Your task to perform on an android device: Search for macbook air on costco, select the first entry, and add it to the cart. Image 0: 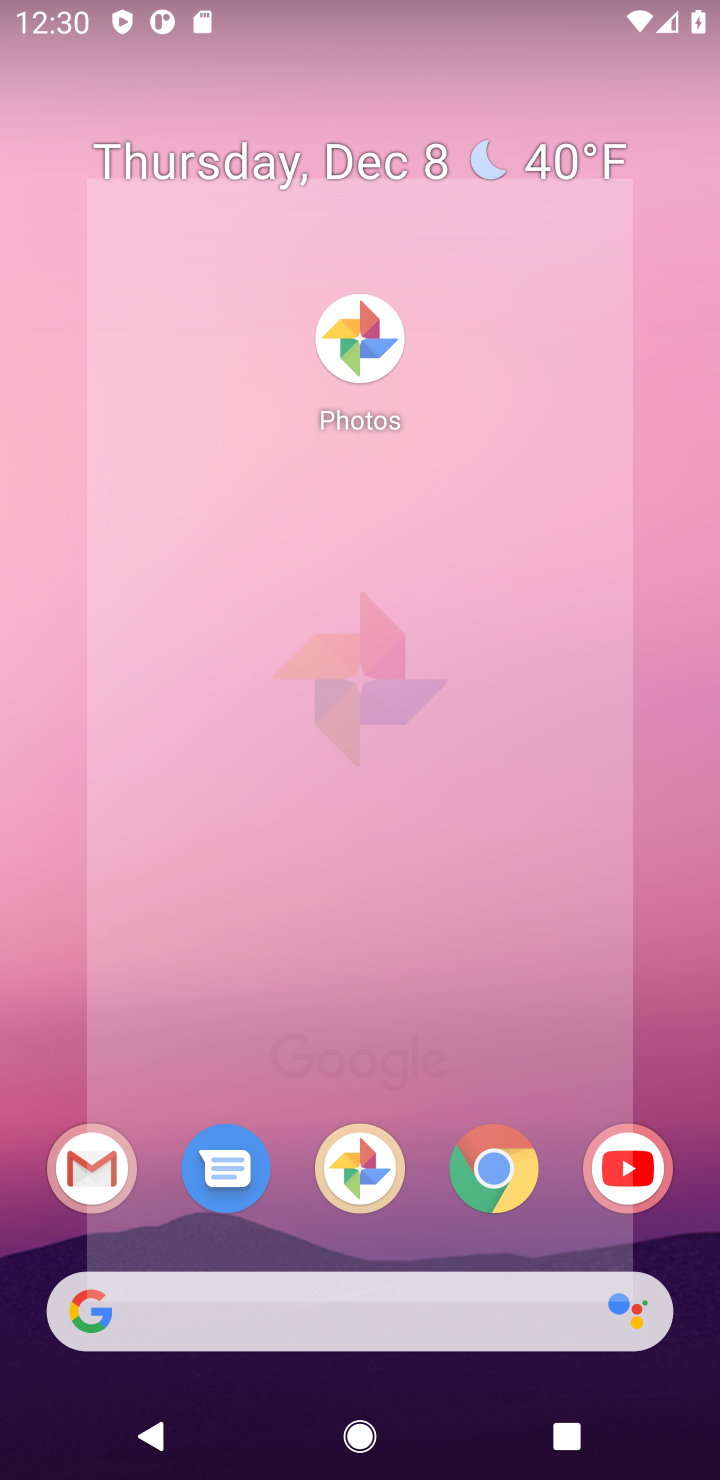
Step 0: drag from (340, 1022) to (353, 407)
Your task to perform on an android device: Search for macbook air on costco, select the first entry, and add it to the cart. Image 1: 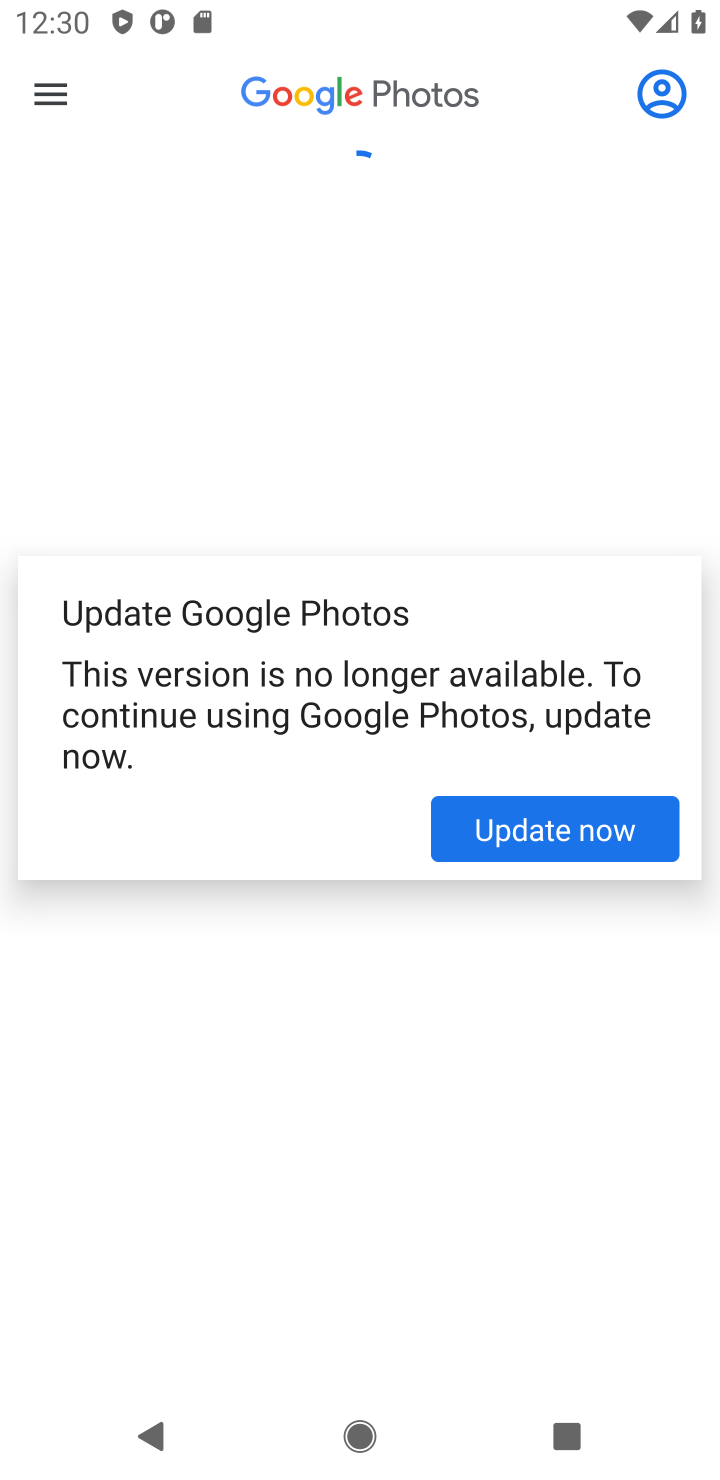
Step 1: press home button
Your task to perform on an android device: Search for macbook air on costco, select the first entry, and add it to the cart. Image 2: 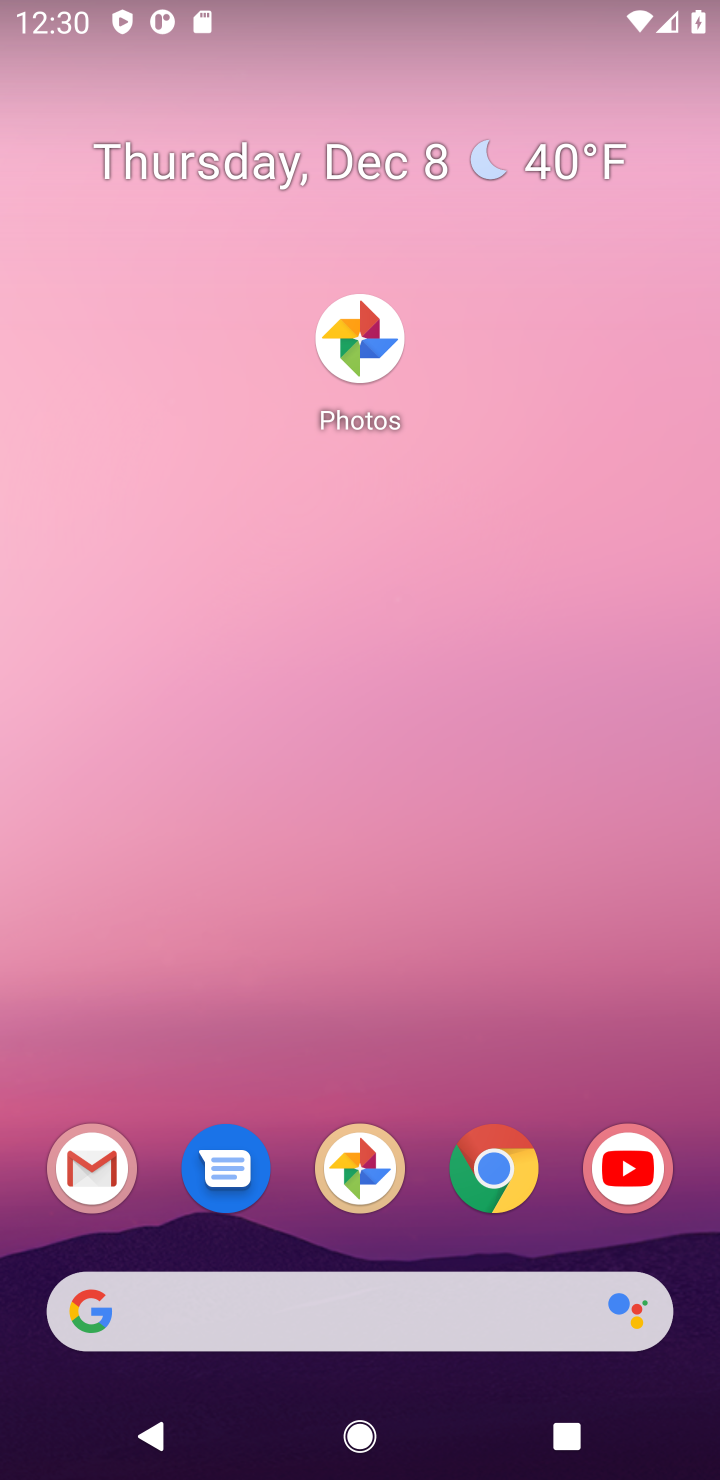
Step 2: drag from (392, 1254) to (345, 326)
Your task to perform on an android device: Search for macbook air on costco, select the first entry, and add it to the cart. Image 3: 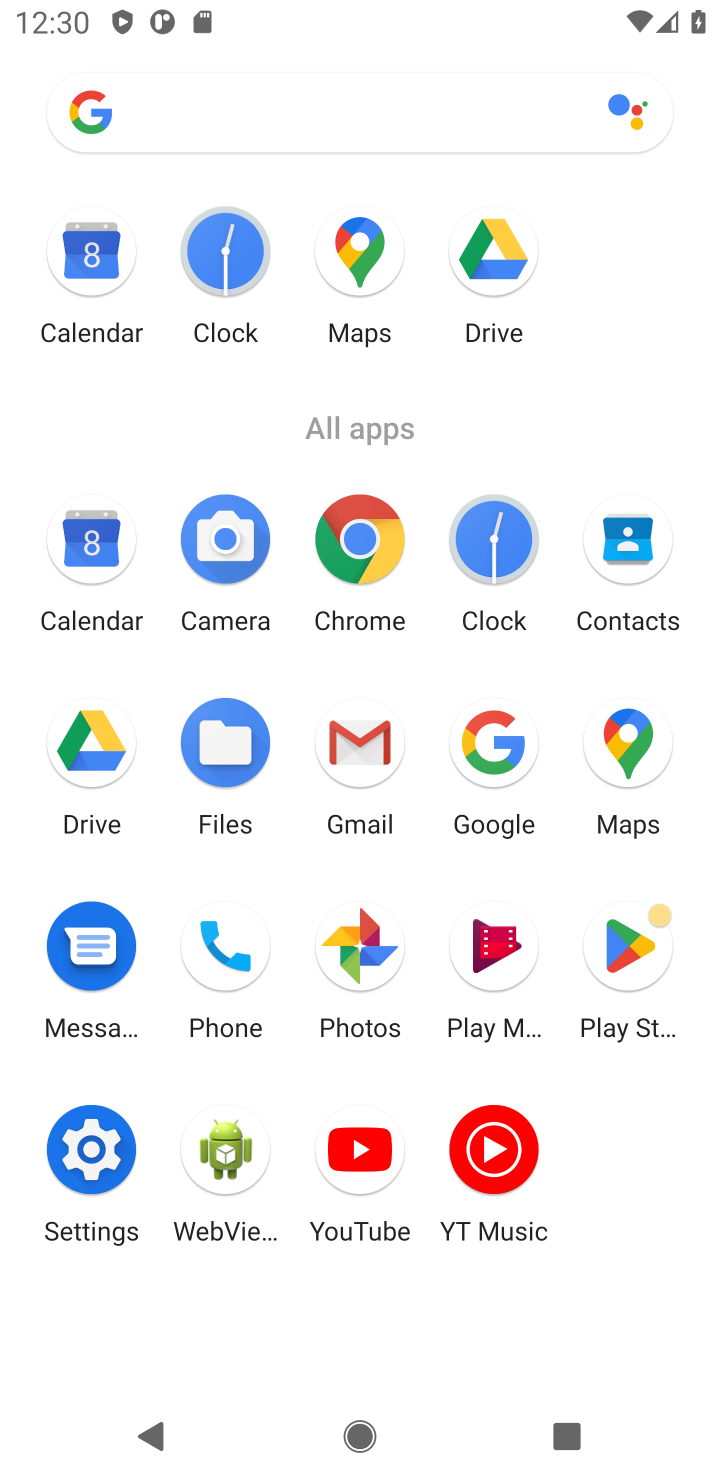
Step 3: click (493, 742)
Your task to perform on an android device: Search for macbook air on costco, select the first entry, and add it to the cart. Image 4: 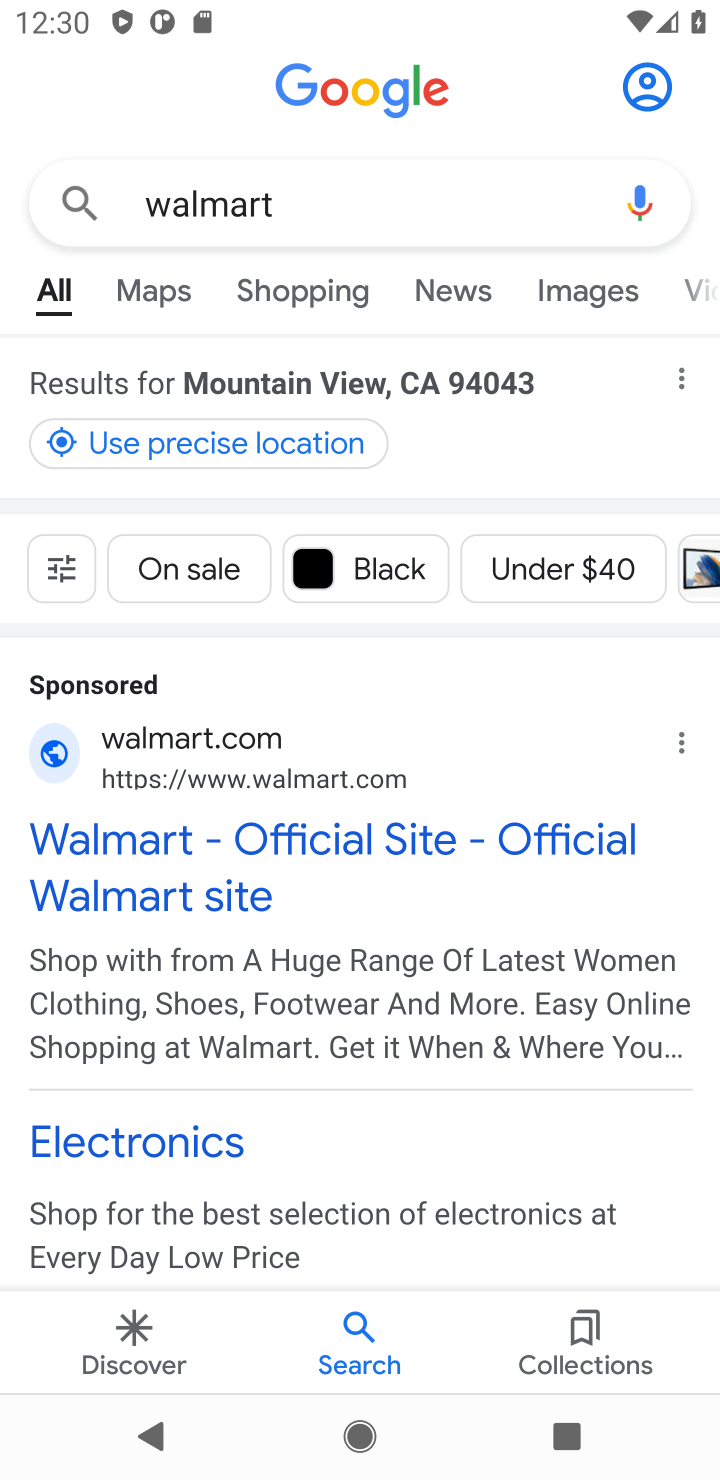
Step 4: click (221, 215)
Your task to perform on an android device: Search for macbook air on costco, select the first entry, and add it to the cart. Image 5: 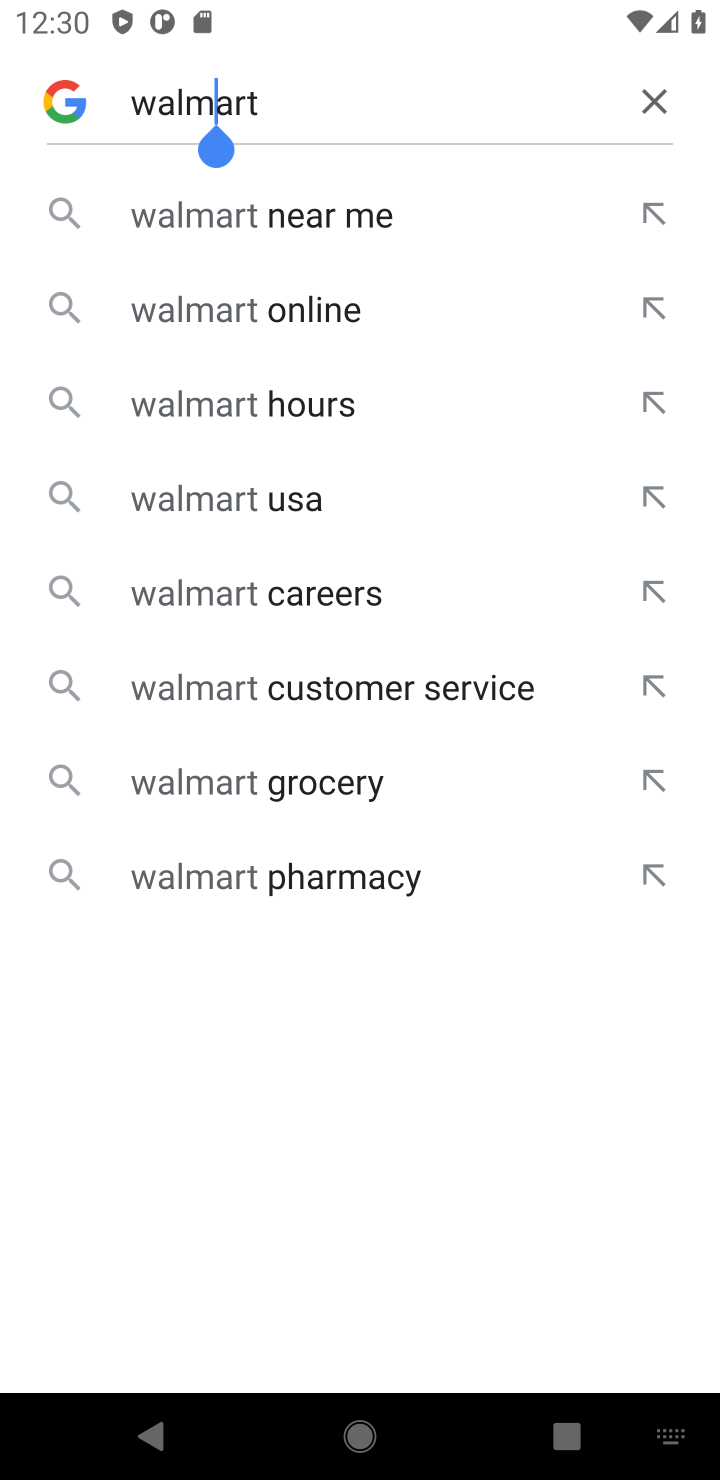
Step 5: click (667, 105)
Your task to perform on an android device: Search for macbook air on costco, select the first entry, and add it to the cart. Image 6: 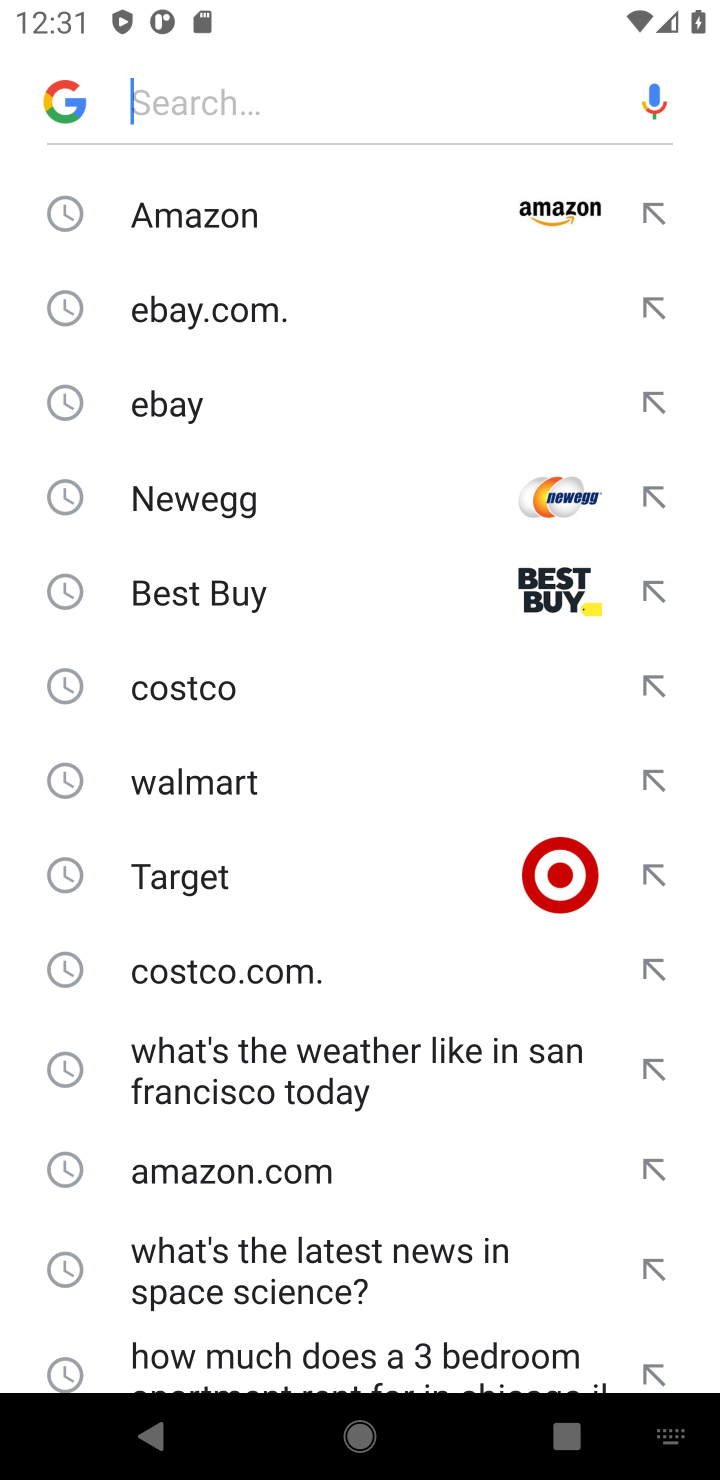
Step 6: click (150, 95)
Your task to perform on an android device: Search for macbook air on costco, select the first entry, and add it to the cart. Image 7: 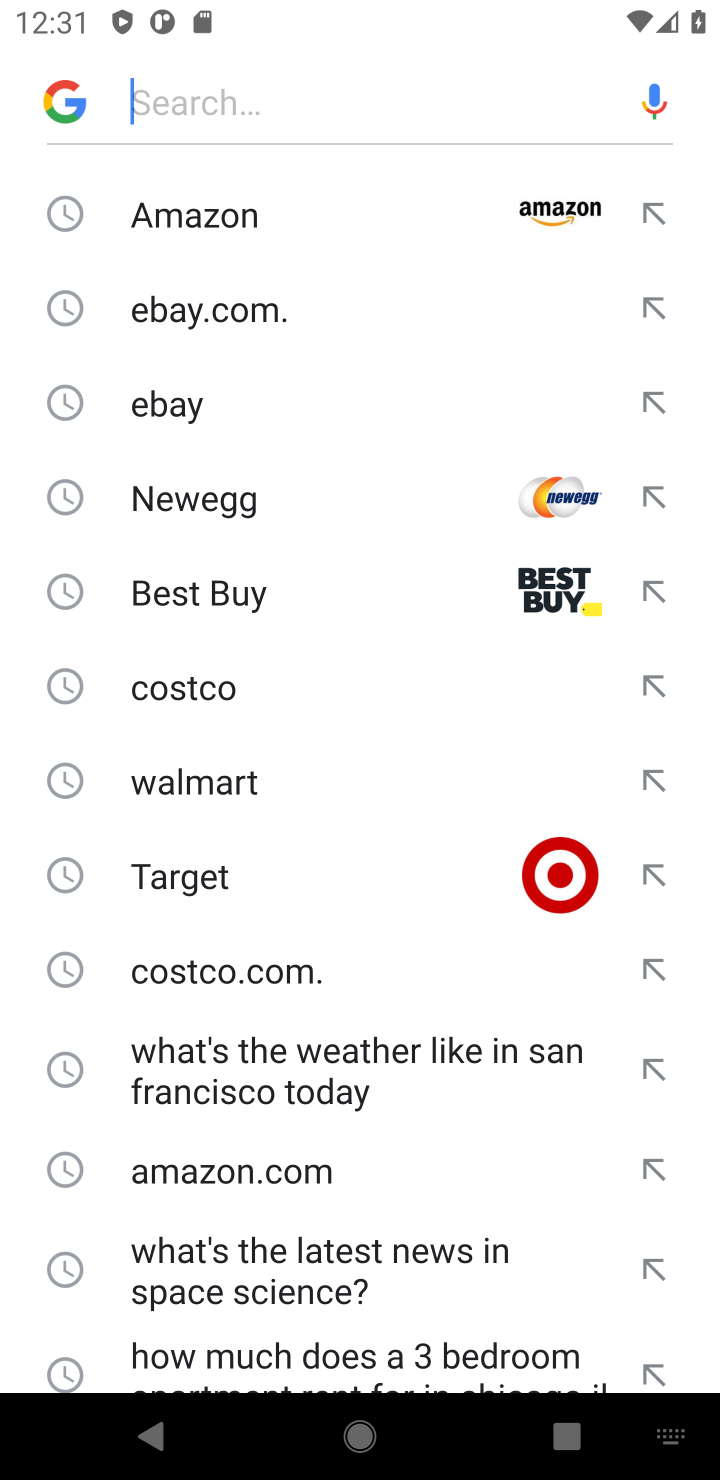
Step 7: click (159, 686)
Your task to perform on an android device: Search for macbook air on costco, select the first entry, and add it to the cart. Image 8: 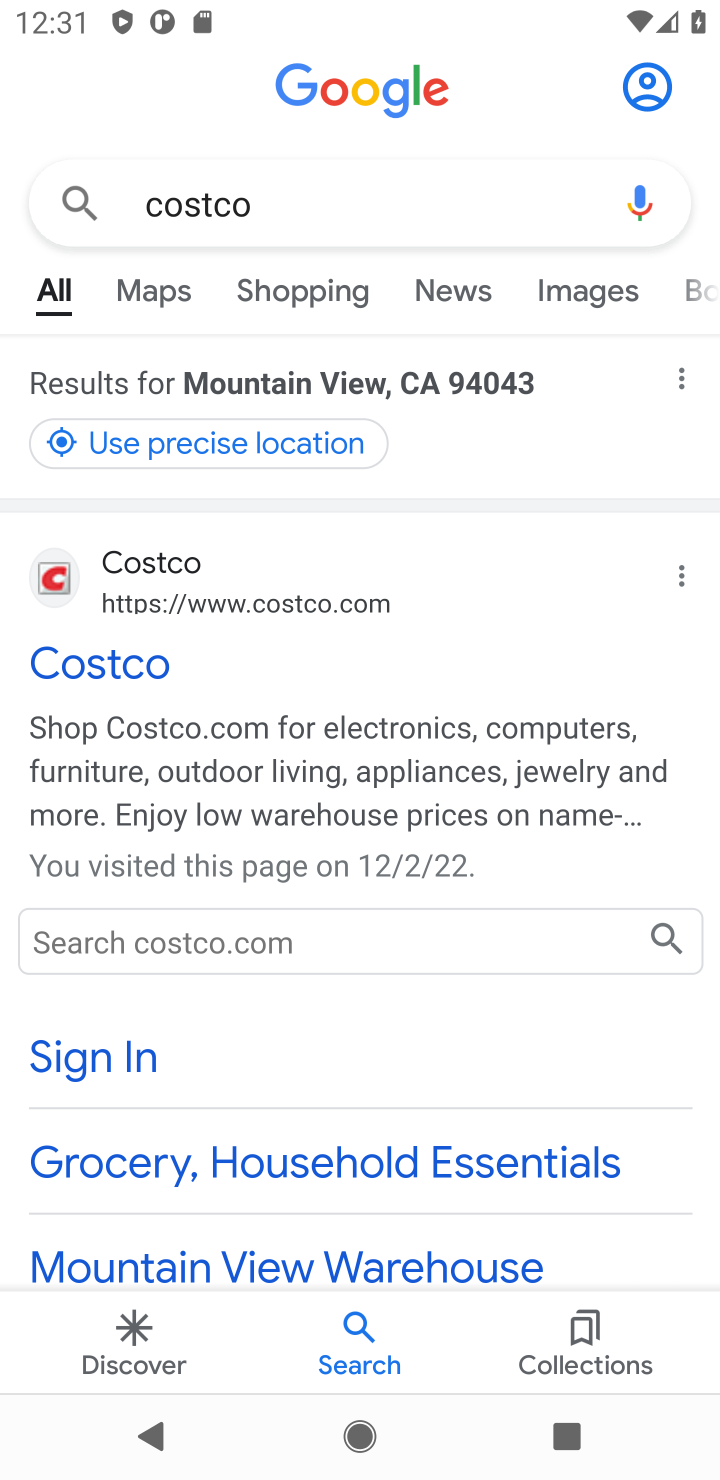
Step 8: click (115, 664)
Your task to perform on an android device: Search for macbook air on costco, select the first entry, and add it to the cart. Image 9: 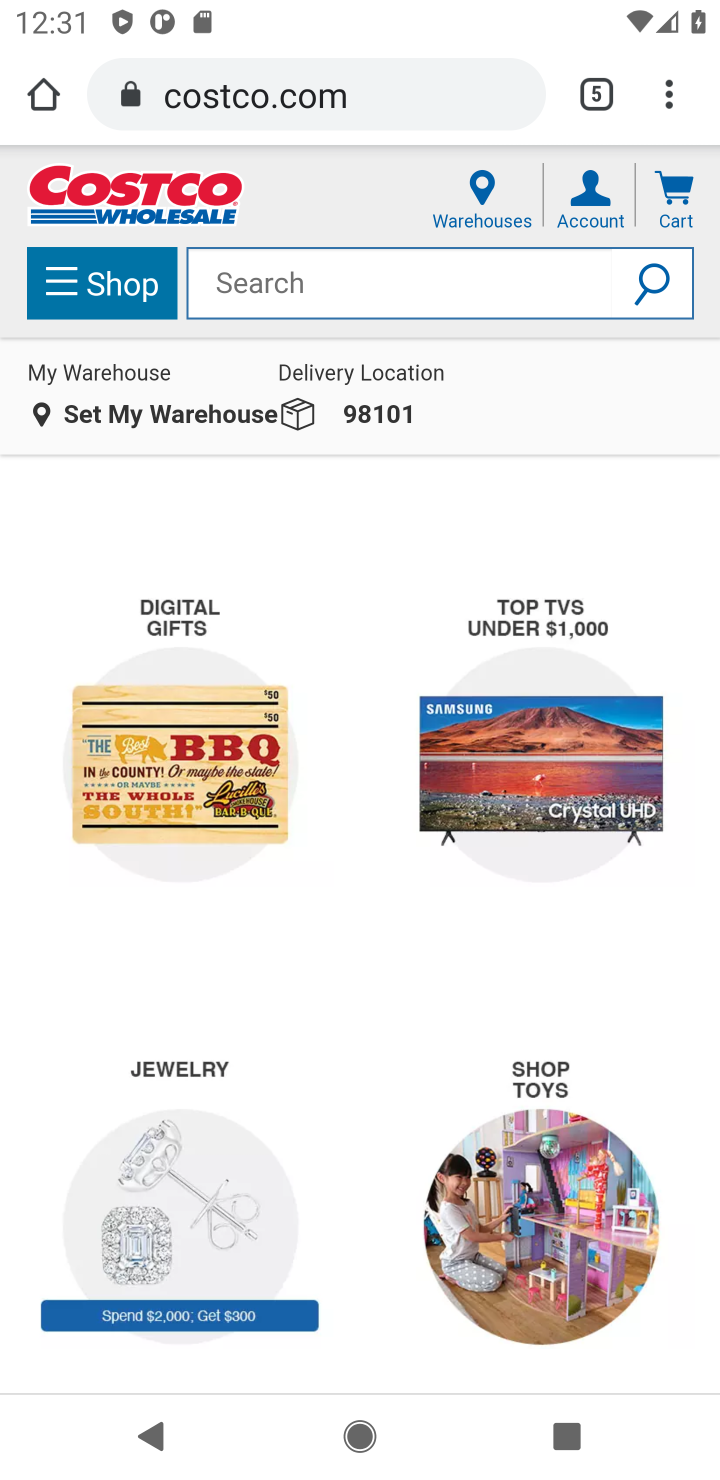
Step 9: click (321, 282)
Your task to perform on an android device: Search for macbook air on costco, select the first entry, and add it to the cart. Image 10: 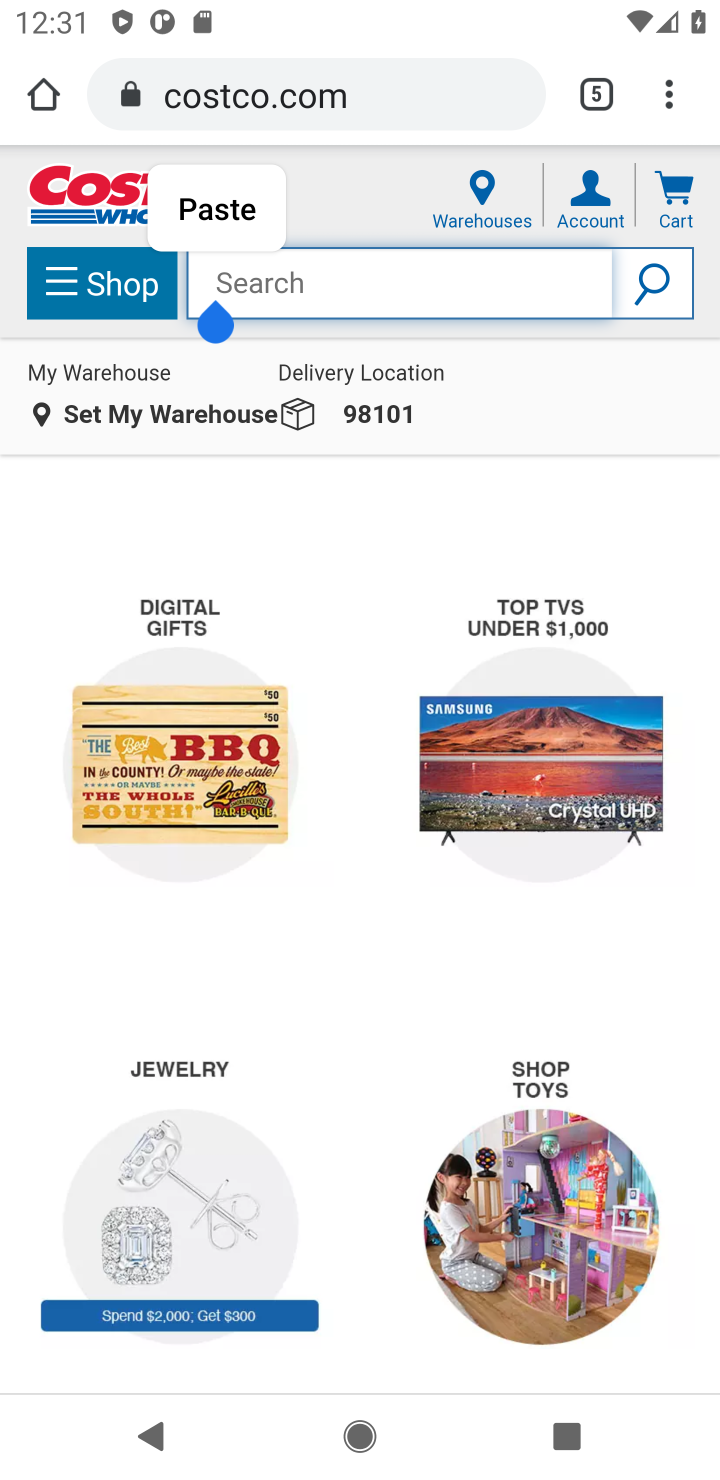
Step 10: type "macbook air"
Your task to perform on an android device: Search for macbook air on costco, select the first entry, and add it to the cart. Image 11: 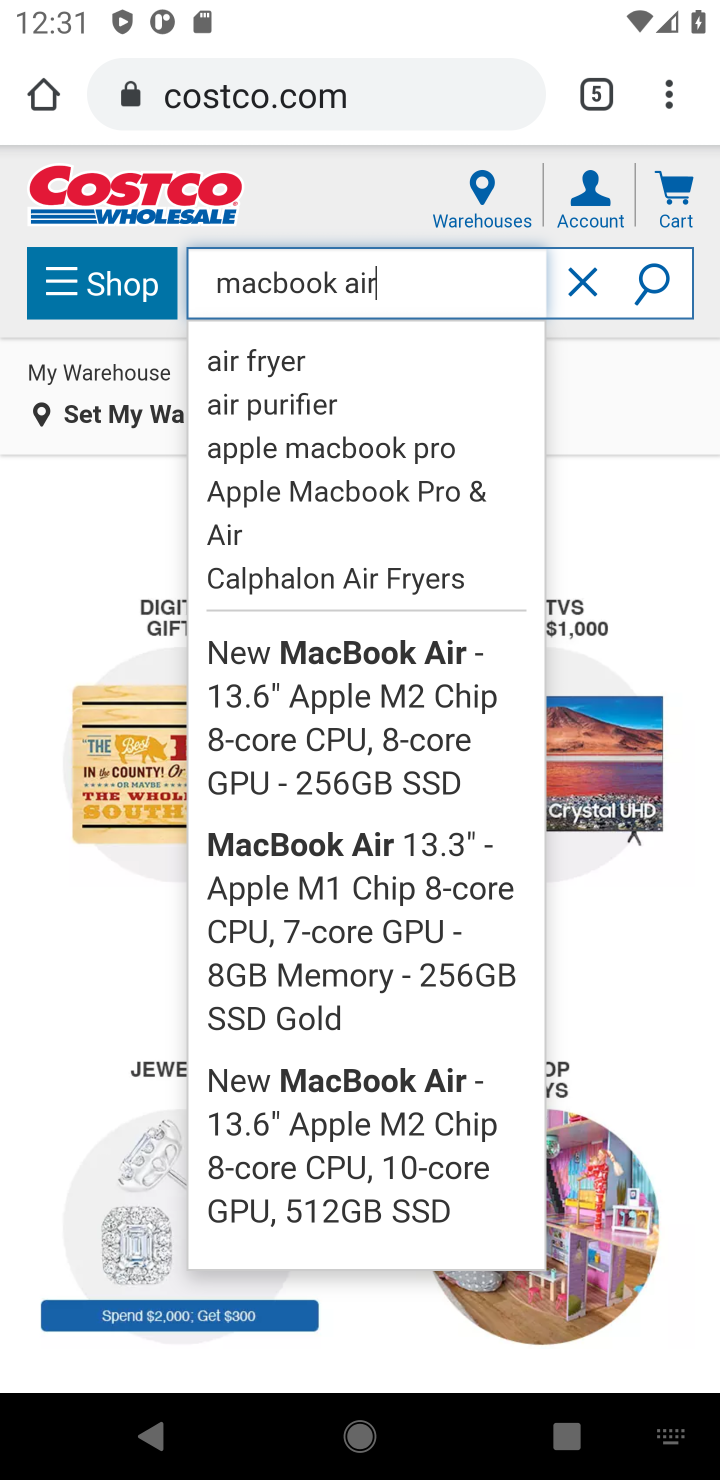
Step 11: click (669, 275)
Your task to perform on an android device: Search for macbook air on costco, select the first entry, and add it to the cart. Image 12: 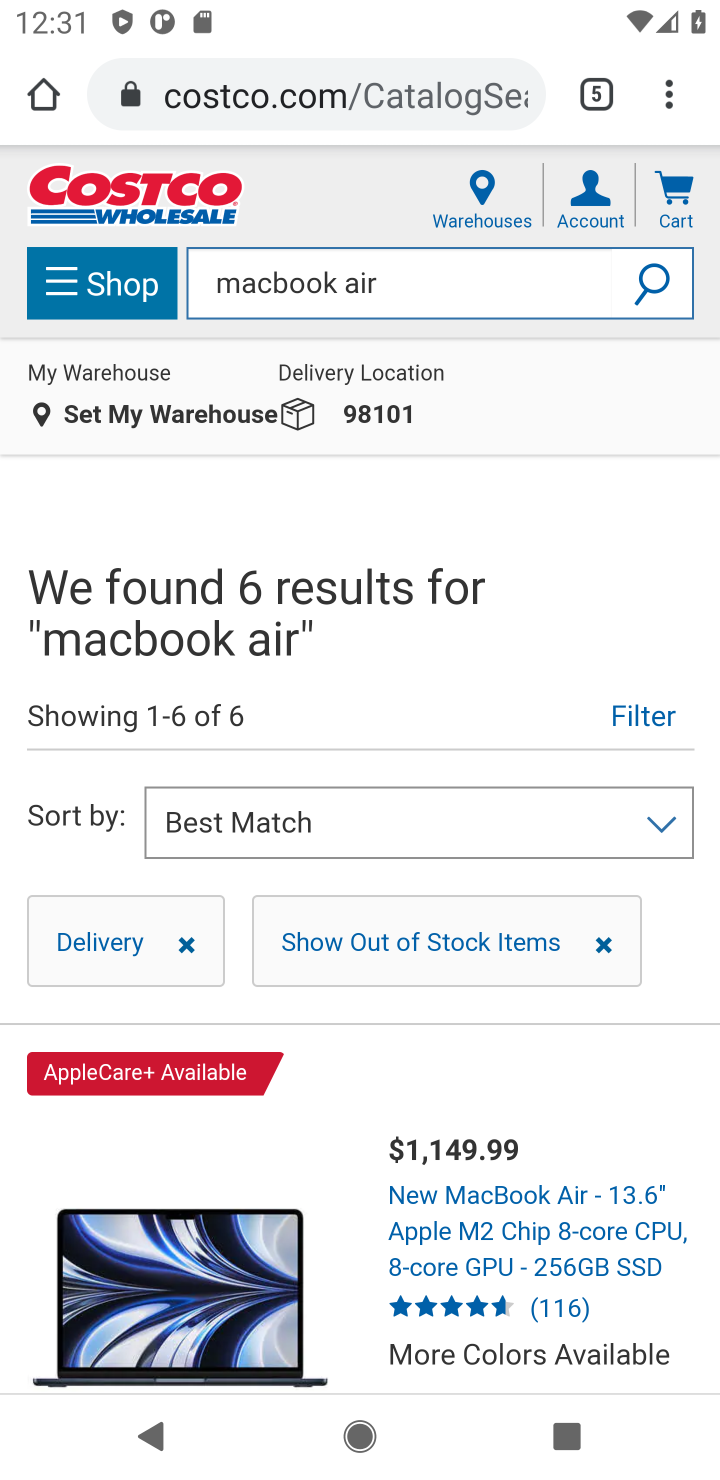
Step 12: drag from (627, 1358) to (518, 760)
Your task to perform on an android device: Search for macbook air on costco, select the first entry, and add it to the cart. Image 13: 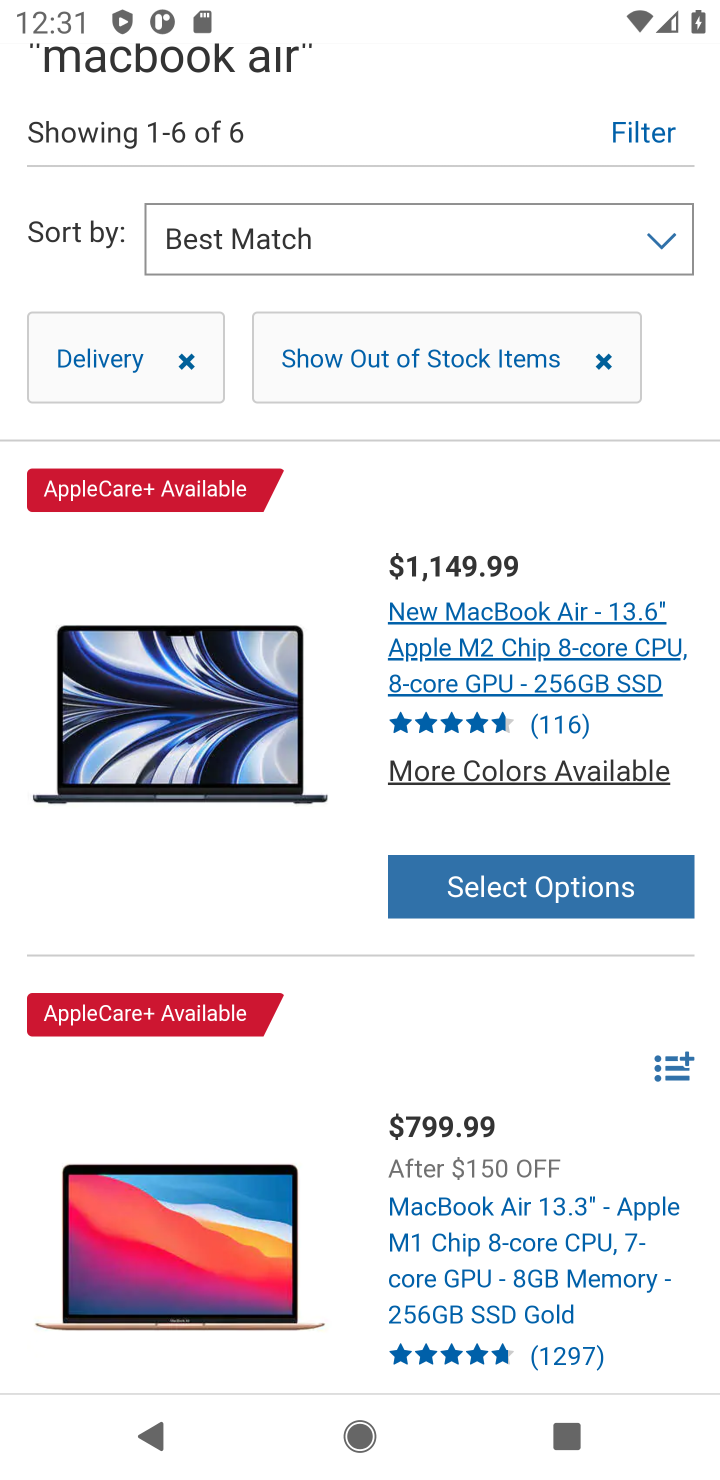
Step 13: click (510, 662)
Your task to perform on an android device: Search for macbook air on costco, select the first entry, and add it to the cart. Image 14: 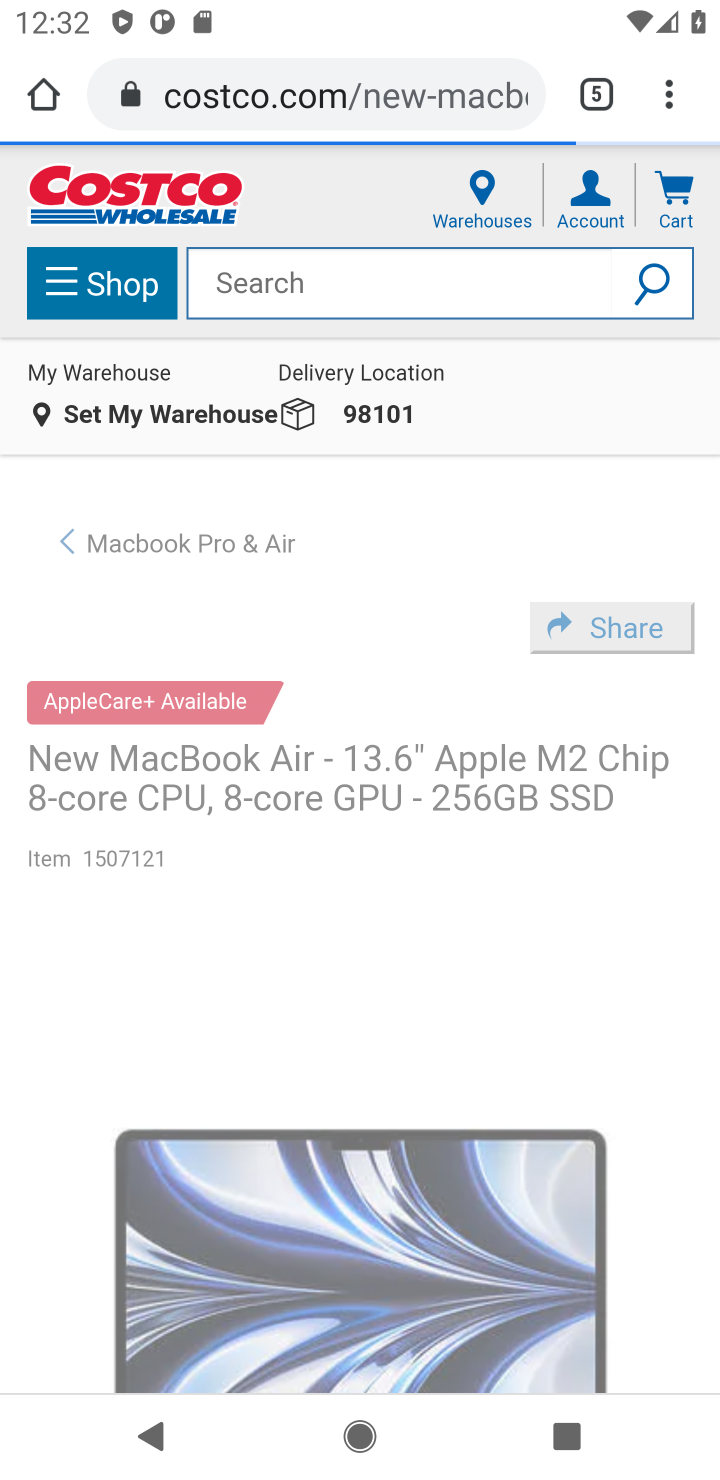
Step 14: drag from (663, 1184) to (535, 382)
Your task to perform on an android device: Search for macbook air on costco, select the first entry, and add it to the cart. Image 15: 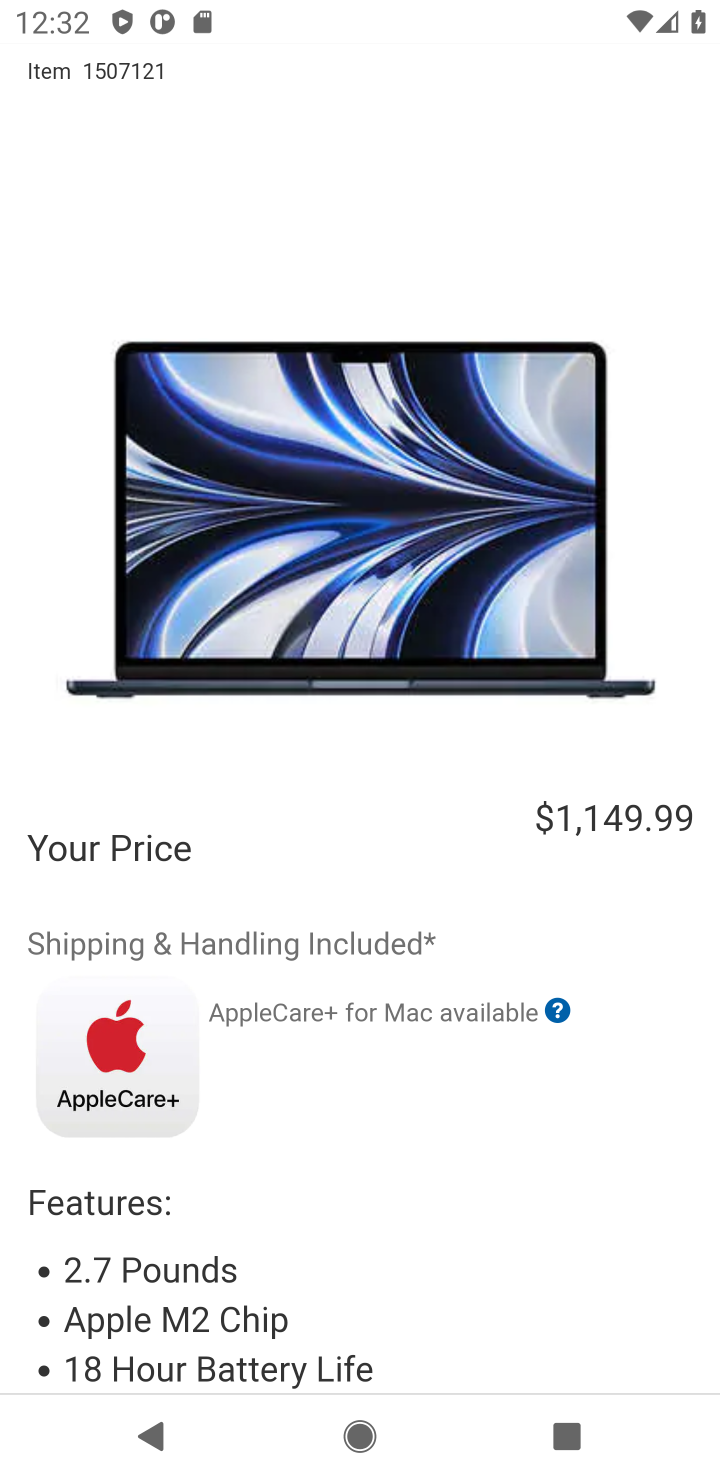
Step 15: drag from (560, 1071) to (537, 318)
Your task to perform on an android device: Search for macbook air on costco, select the first entry, and add it to the cart. Image 16: 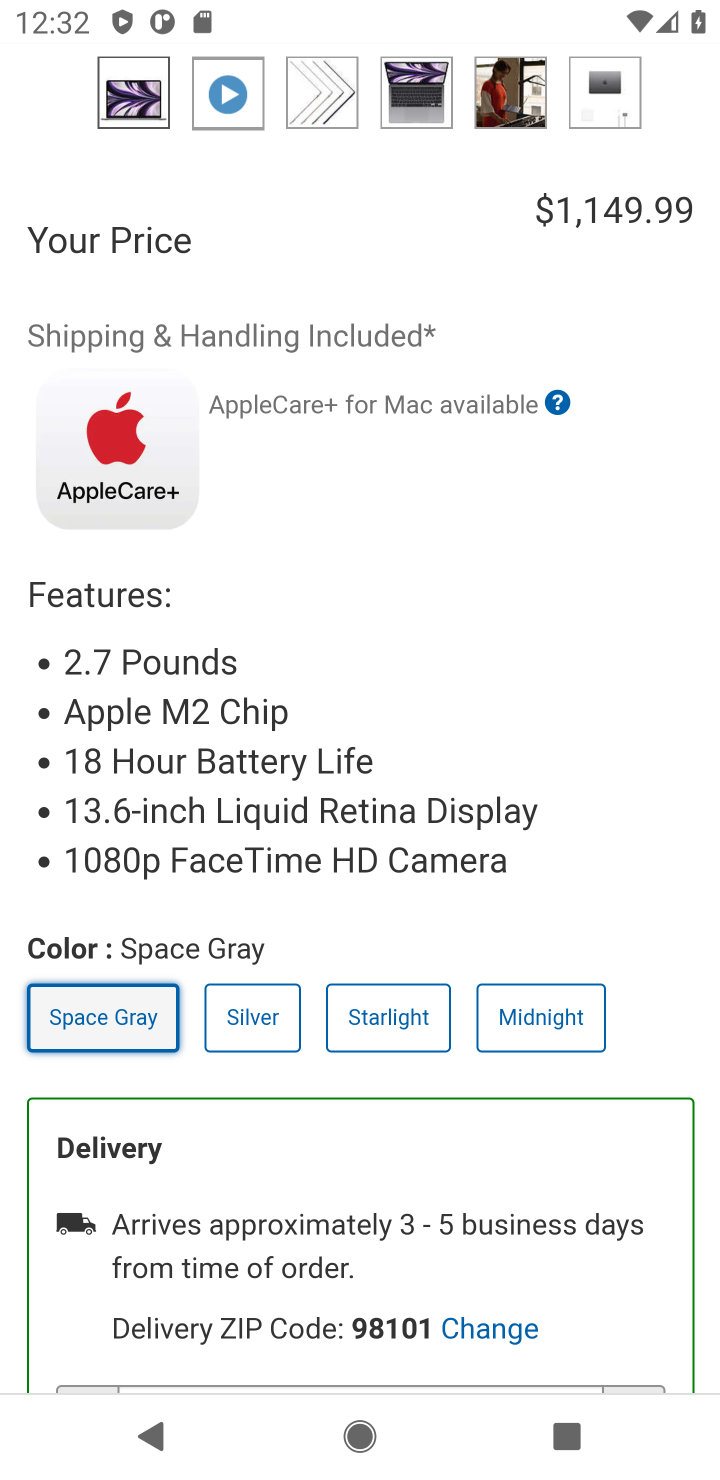
Step 16: drag from (611, 1121) to (606, 341)
Your task to perform on an android device: Search for macbook air on costco, select the first entry, and add it to the cart. Image 17: 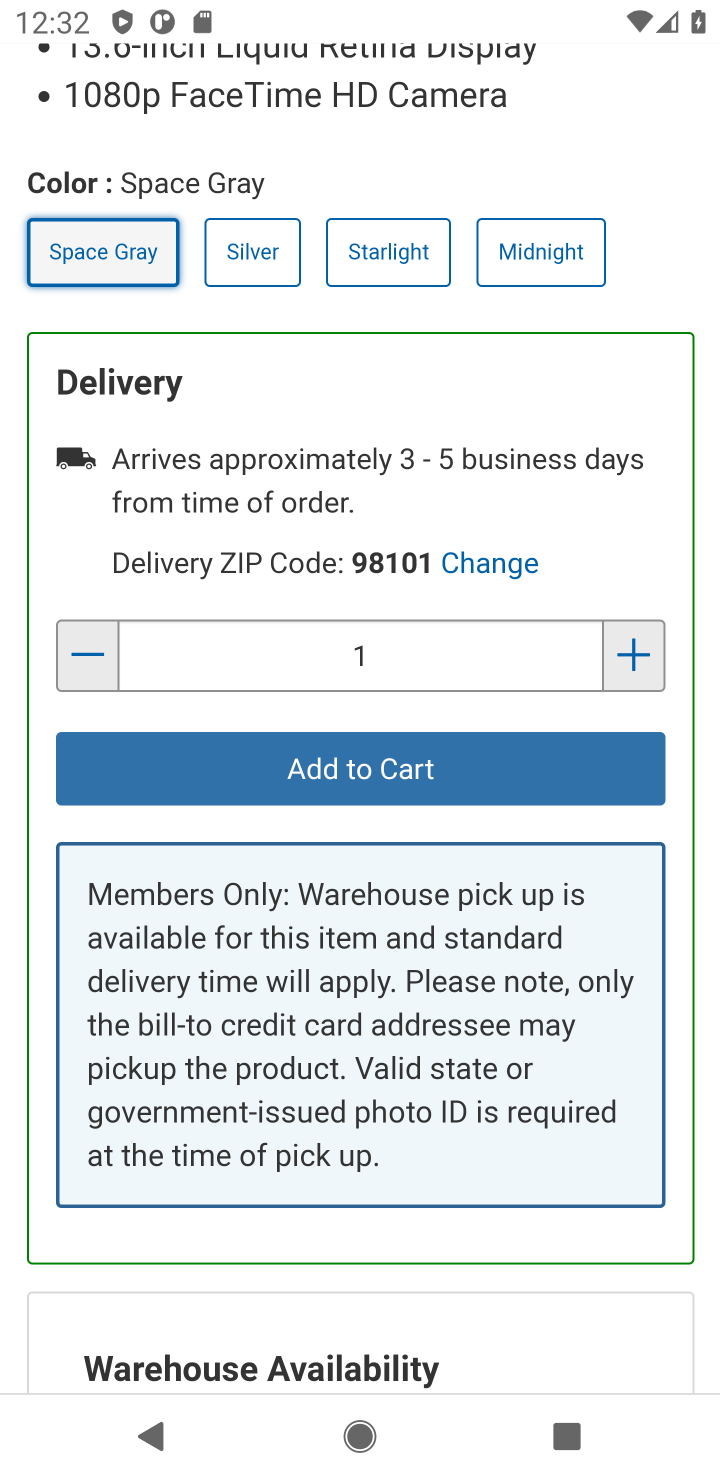
Step 17: click (392, 770)
Your task to perform on an android device: Search for macbook air on costco, select the first entry, and add it to the cart. Image 18: 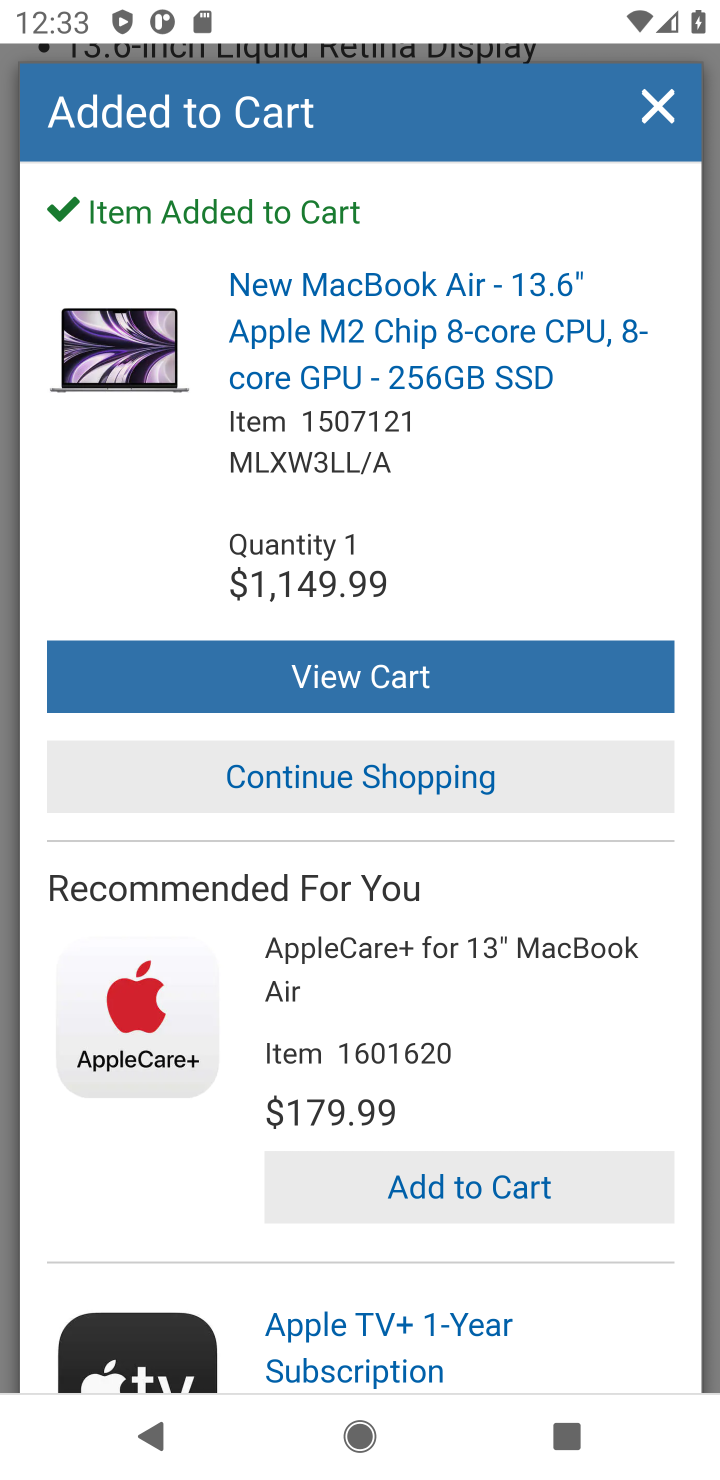
Step 18: click (404, 673)
Your task to perform on an android device: Search for macbook air on costco, select the first entry, and add it to the cart. Image 19: 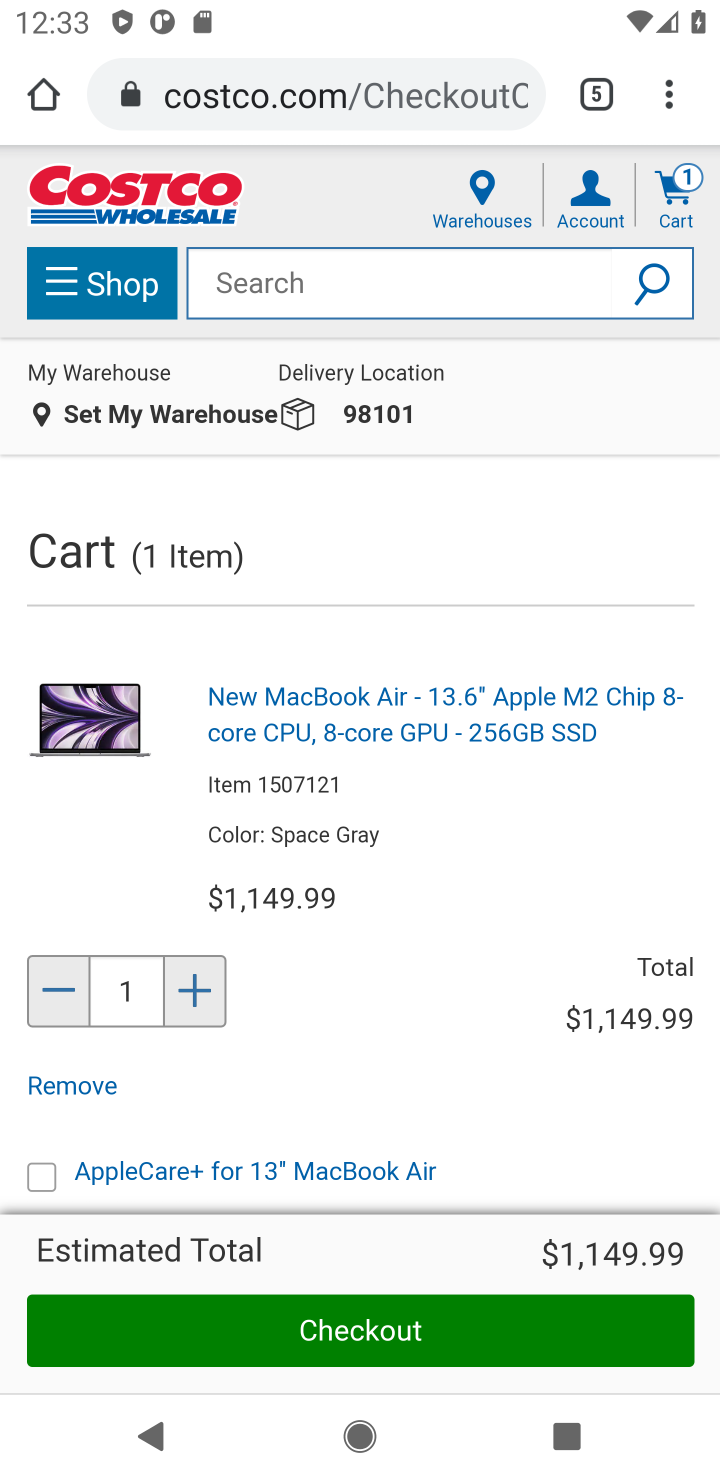
Step 19: task complete